Your task to perform on an android device: turn off notifications settings in the gmail app Image 0: 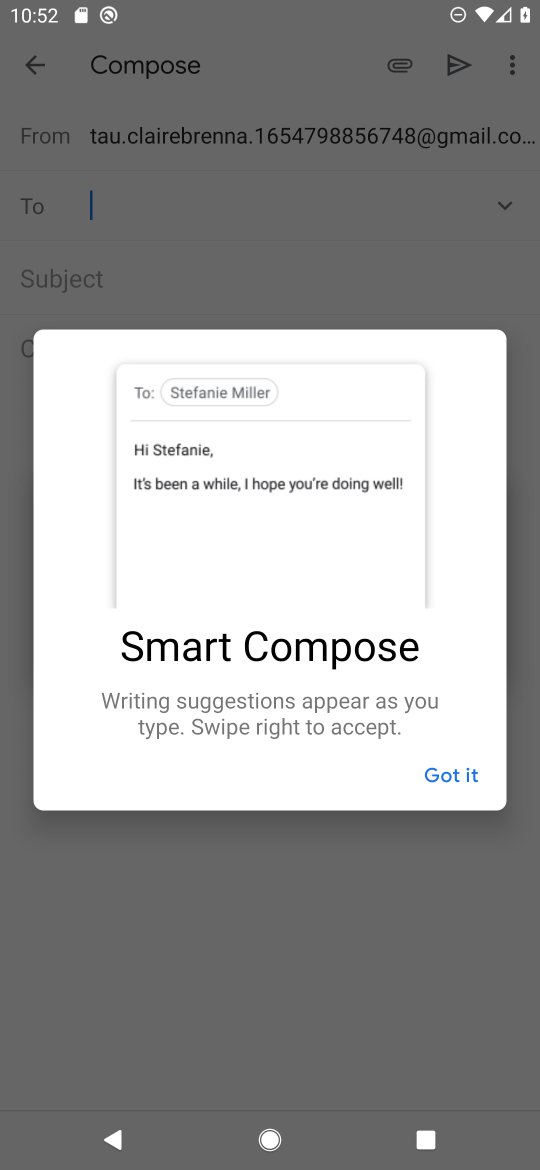
Step 0: press home button
Your task to perform on an android device: turn off notifications settings in the gmail app Image 1: 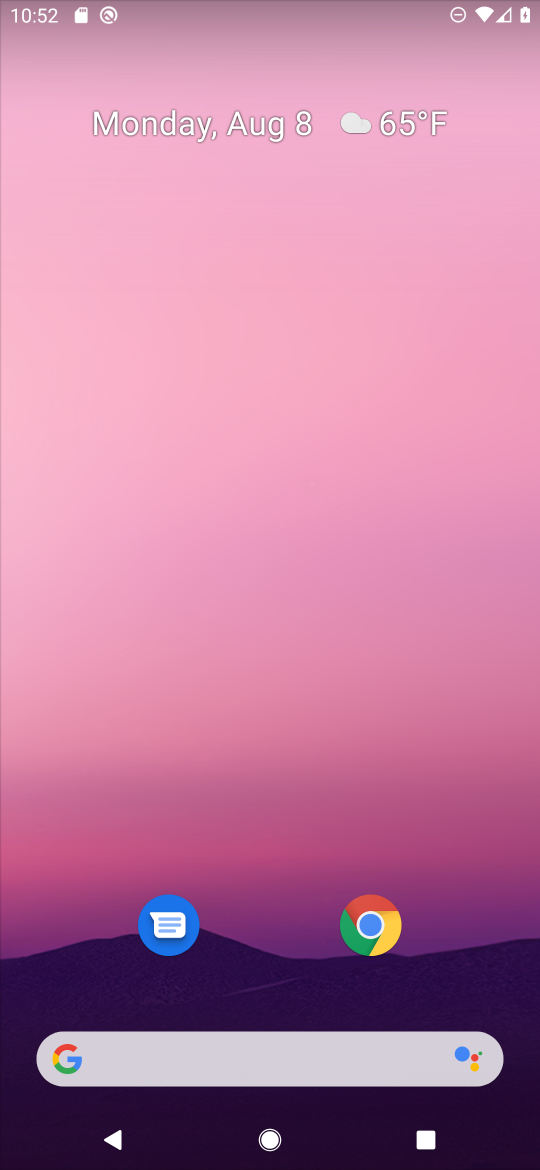
Step 1: drag from (274, 538) to (284, 79)
Your task to perform on an android device: turn off notifications settings in the gmail app Image 2: 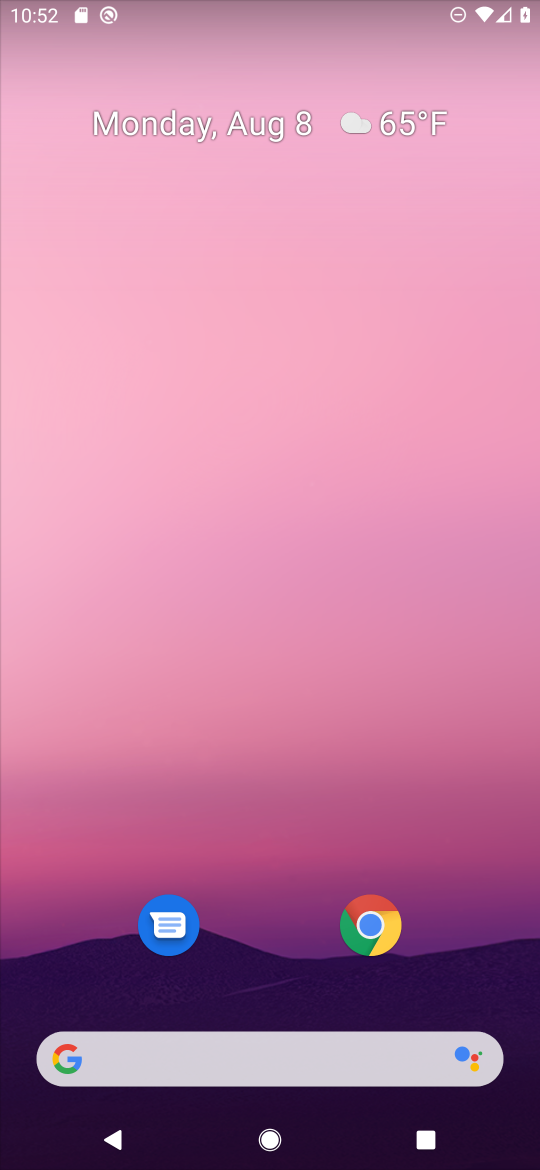
Step 2: drag from (286, 934) to (291, 191)
Your task to perform on an android device: turn off notifications settings in the gmail app Image 3: 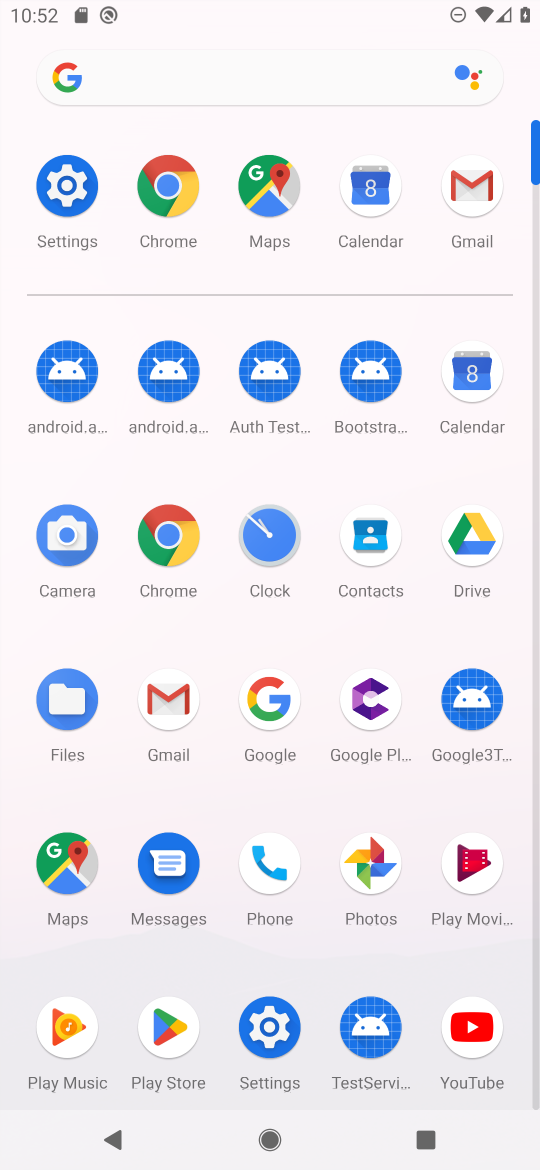
Step 3: click (478, 193)
Your task to perform on an android device: turn off notifications settings in the gmail app Image 4: 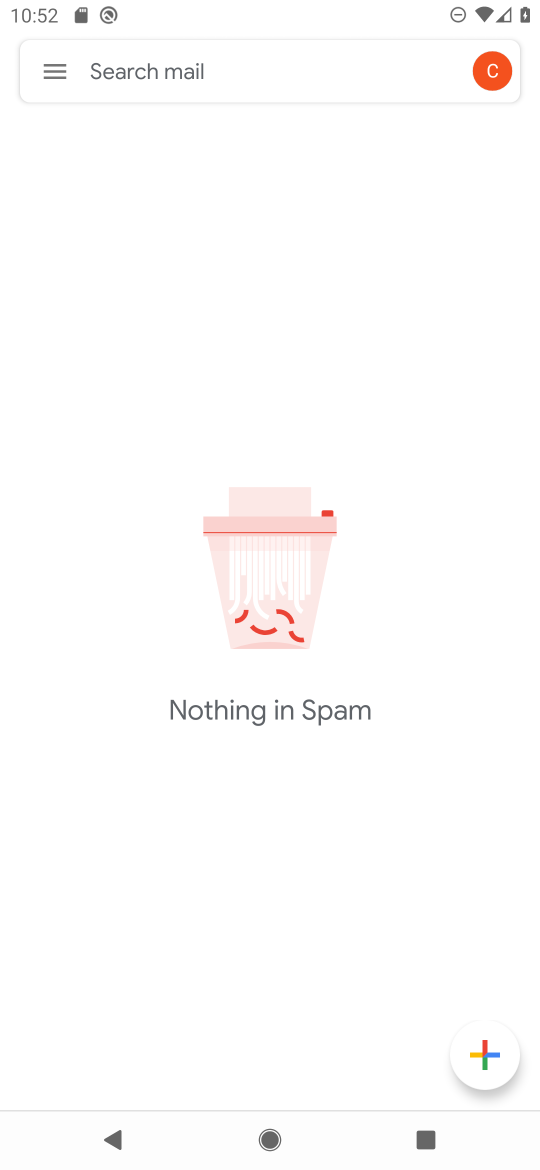
Step 4: click (62, 76)
Your task to perform on an android device: turn off notifications settings in the gmail app Image 5: 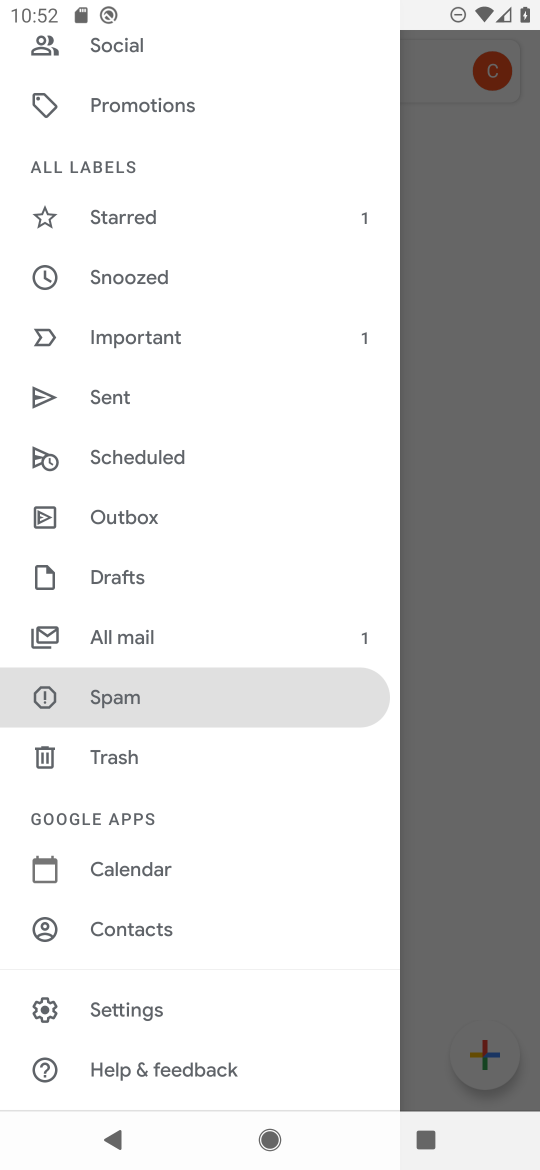
Step 5: click (111, 1014)
Your task to perform on an android device: turn off notifications settings in the gmail app Image 6: 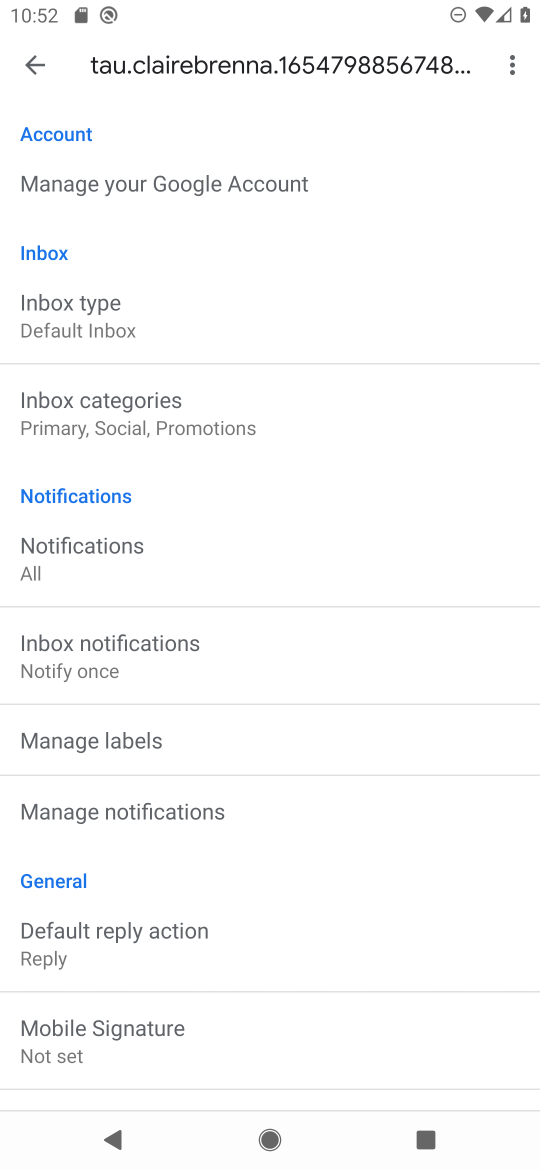
Step 6: click (192, 814)
Your task to perform on an android device: turn off notifications settings in the gmail app Image 7: 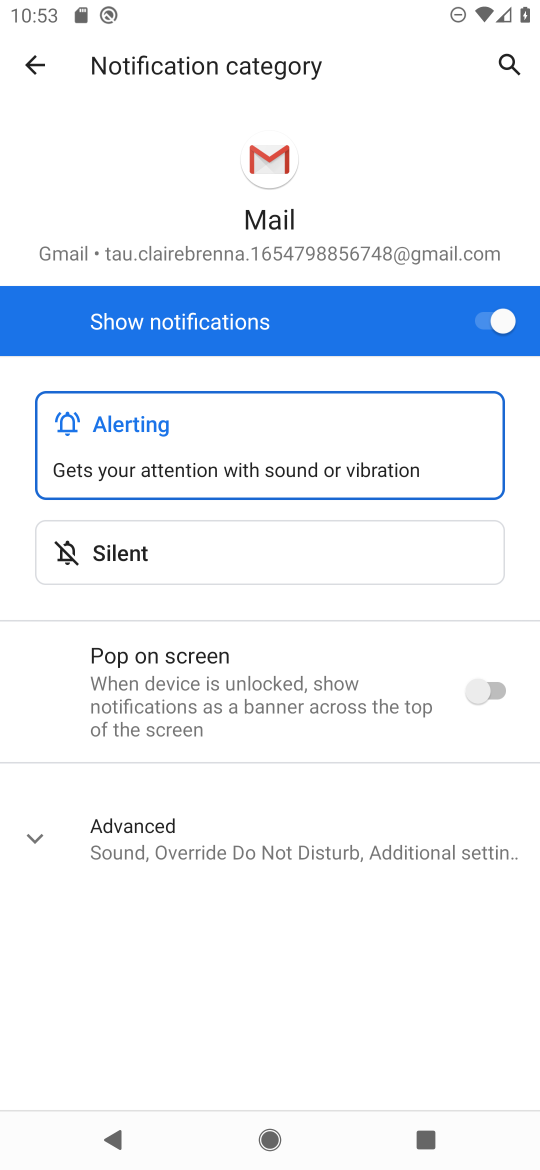
Step 7: click (478, 313)
Your task to perform on an android device: turn off notifications settings in the gmail app Image 8: 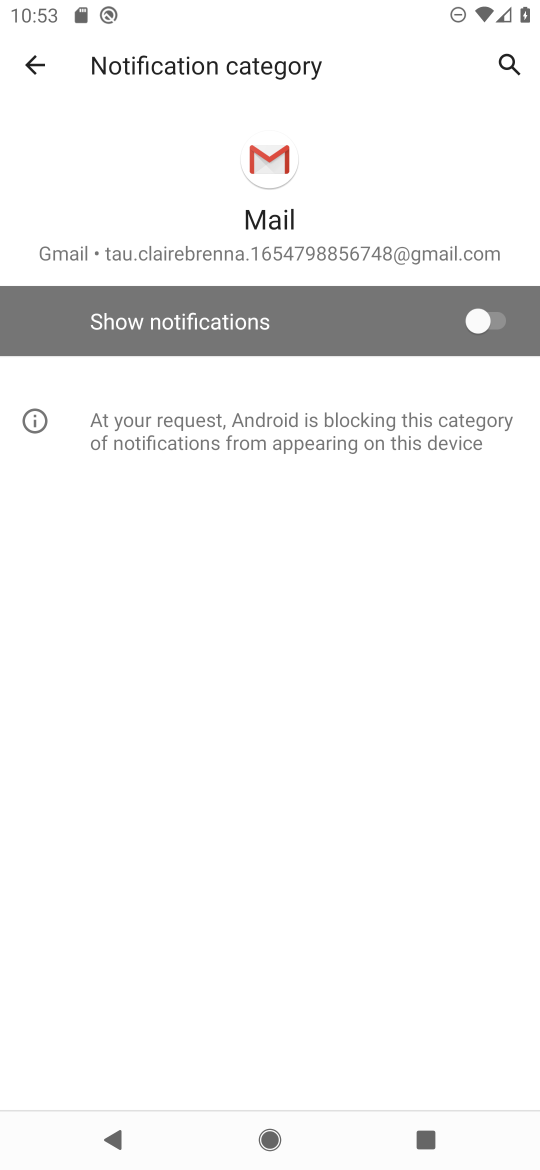
Step 8: task complete